Your task to perform on an android device: set an alarm Image 0: 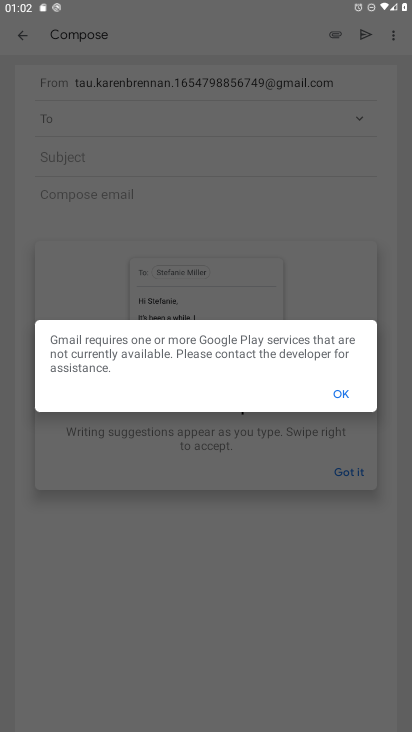
Step 0: press home button
Your task to perform on an android device: set an alarm Image 1: 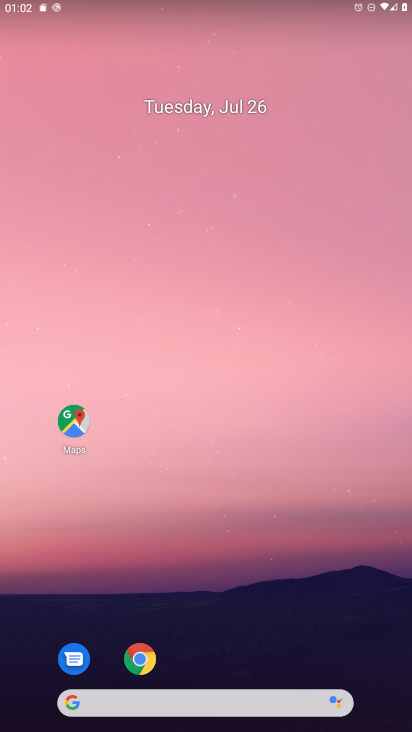
Step 1: drag from (257, 671) to (291, 95)
Your task to perform on an android device: set an alarm Image 2: 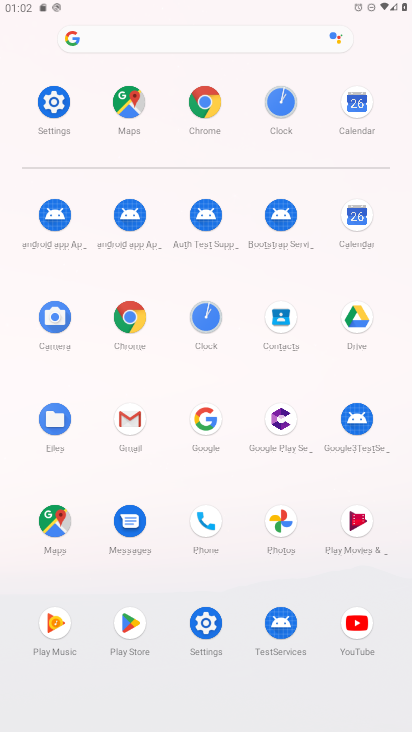
Step 2: click (208, 322)
Your task to perform on an android device: set an alarm Image 3: 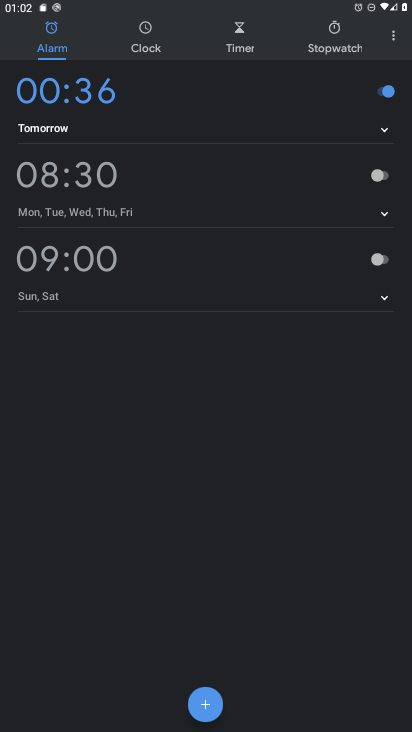
Step 3: click (54, 52)
Your task to perform on an android device: set an alarm Image 4: 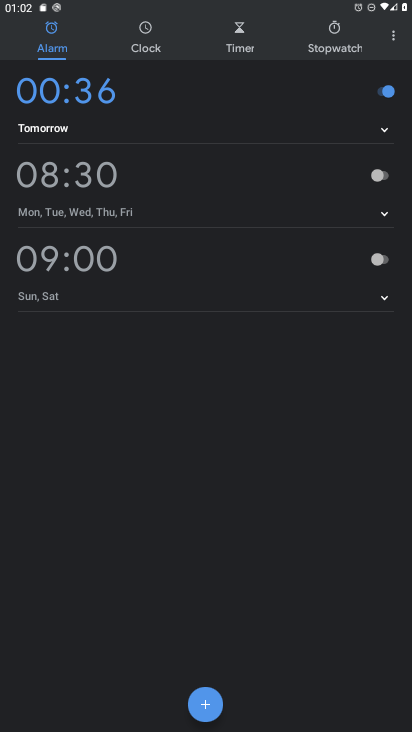
Step 4: click (210, 711)
Your task to perform on an android device: set an alarm Image 5: 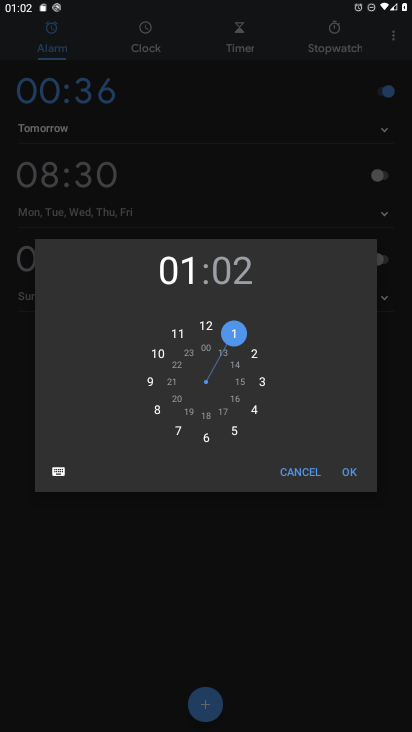
Step 5: click (210, 439)
Your task to perform on an android device: set an alarm Image 6: 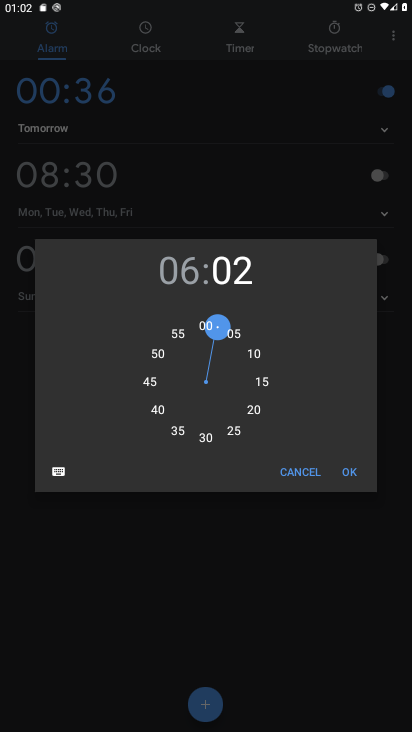
Step 6: click (211, 430)
Your task to perform on an android device: set an alarm Image 7: 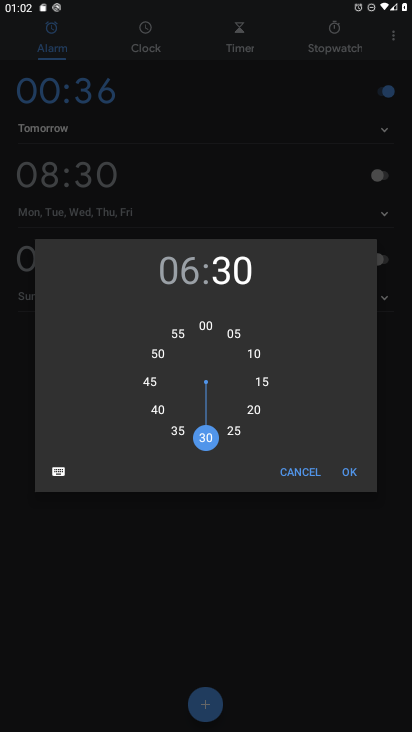
Step 7: click (346, 474)
Your task to perform on an android device: set an alarm Image 8: 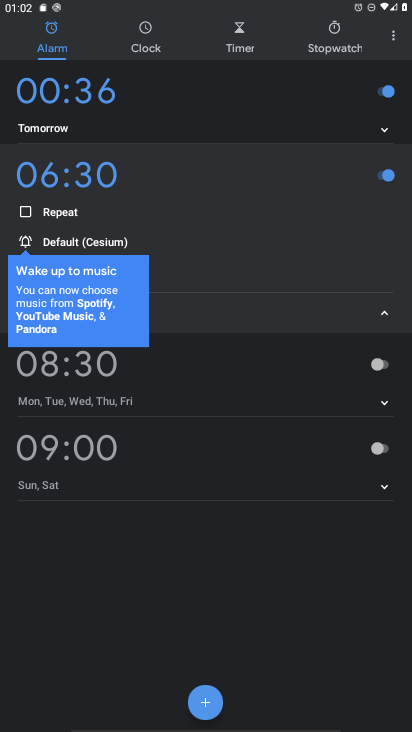
Step 8: task complete